Your task to perform on an android device: set default search engine in the chrome app Image 0: 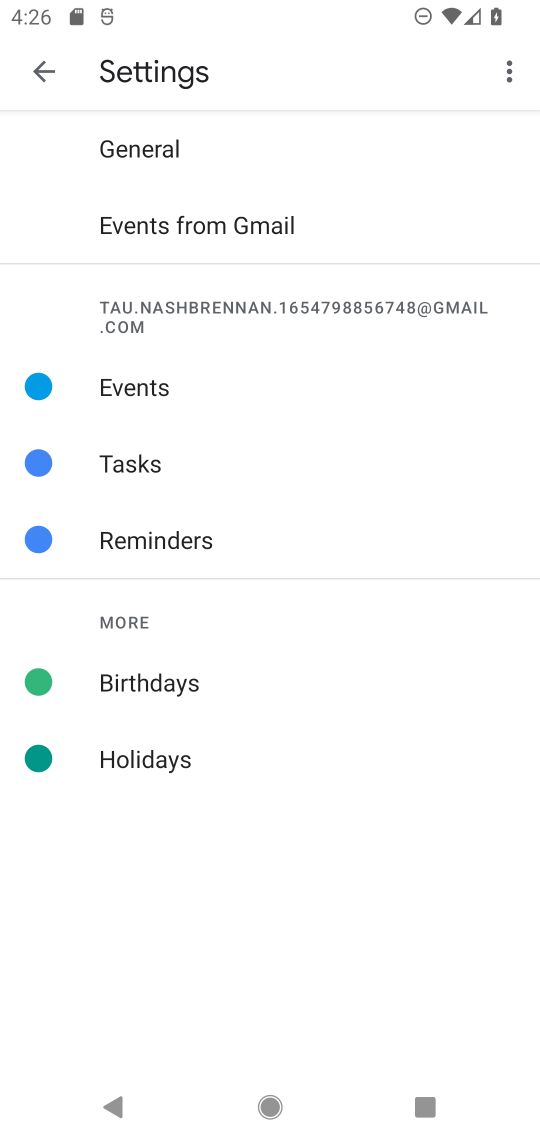
Step 0: press home button
Your task to perform on an android device: set default search engine in the chrome app Image 1: 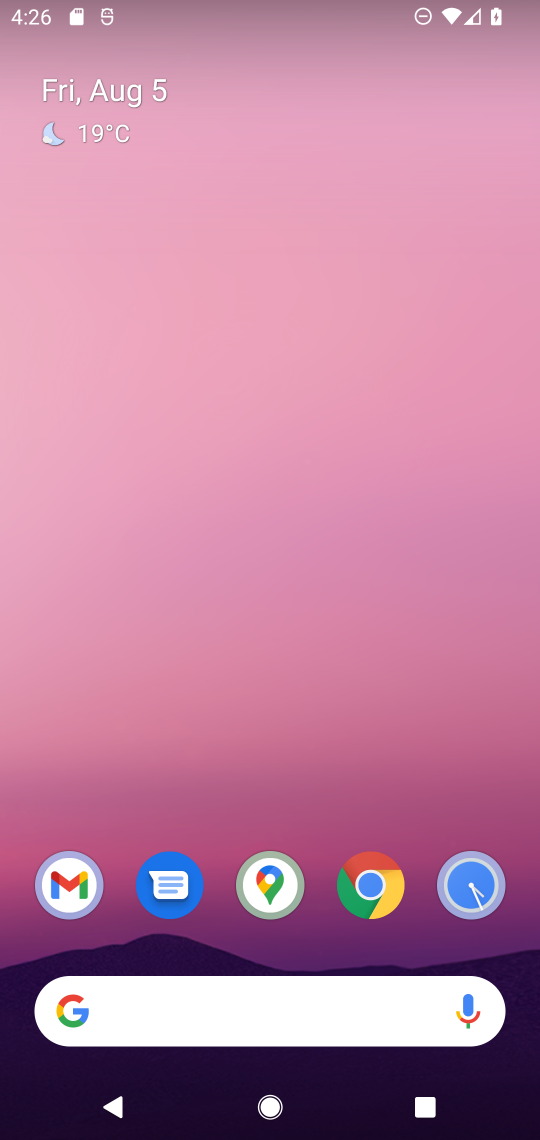
Step 1: click (360, 884)
Your task to perform on an android device: set default search engine in the chrome app Image 2: 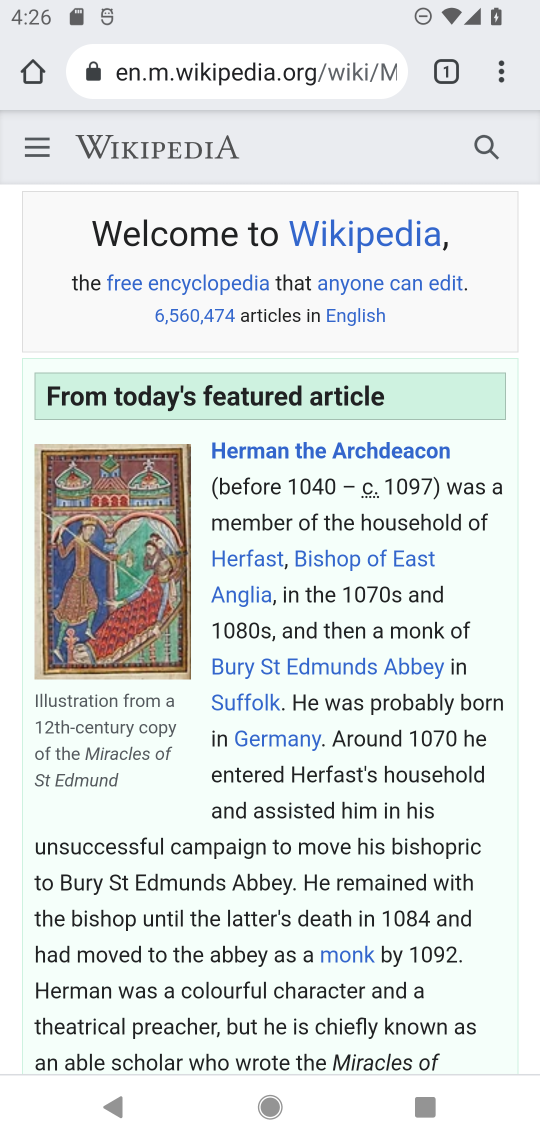
Step 2: click (497, 78)
Your task to perform on an android device: set default search engine in the chrome app Image 3: 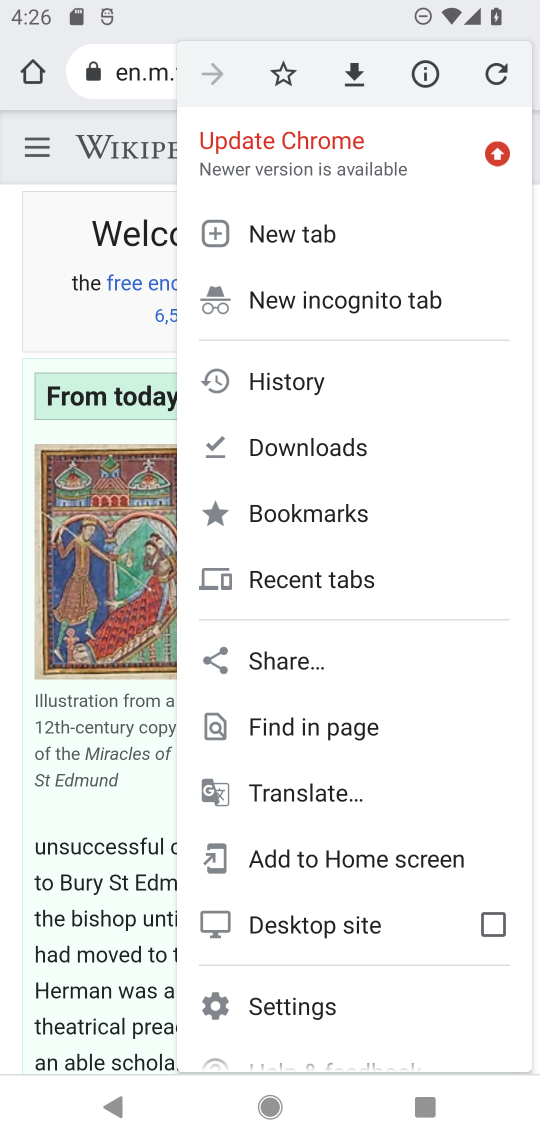
Step 3: click (306, 1010)
Your task to perform on an android device: set default search engine in the chrome app Image 4: 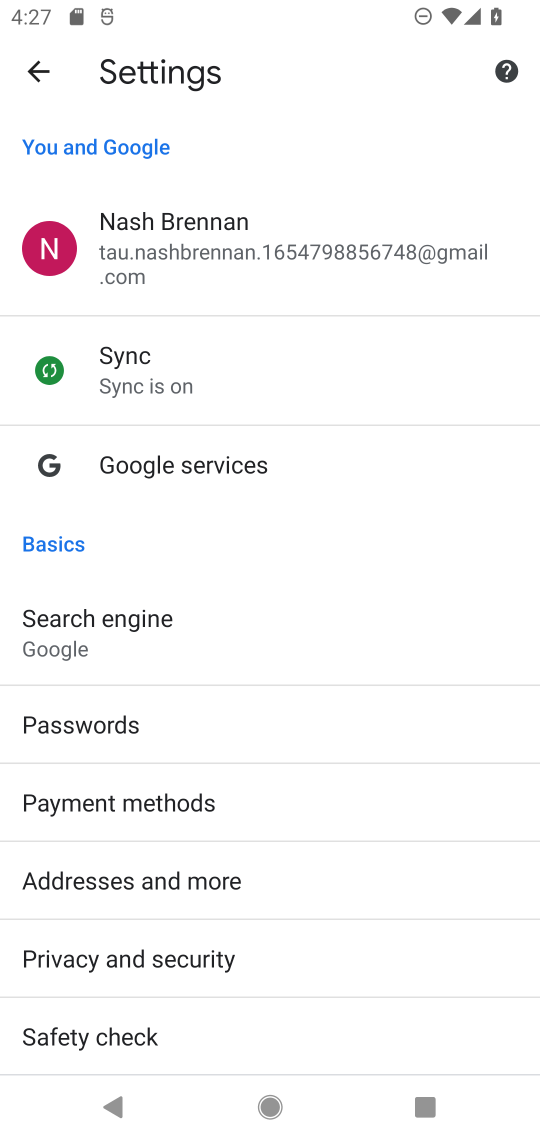
Step 4: drag from (149, 951) to (166, 573)
Your task to perform on an android device: set default search engine in the chrome app Image 5: 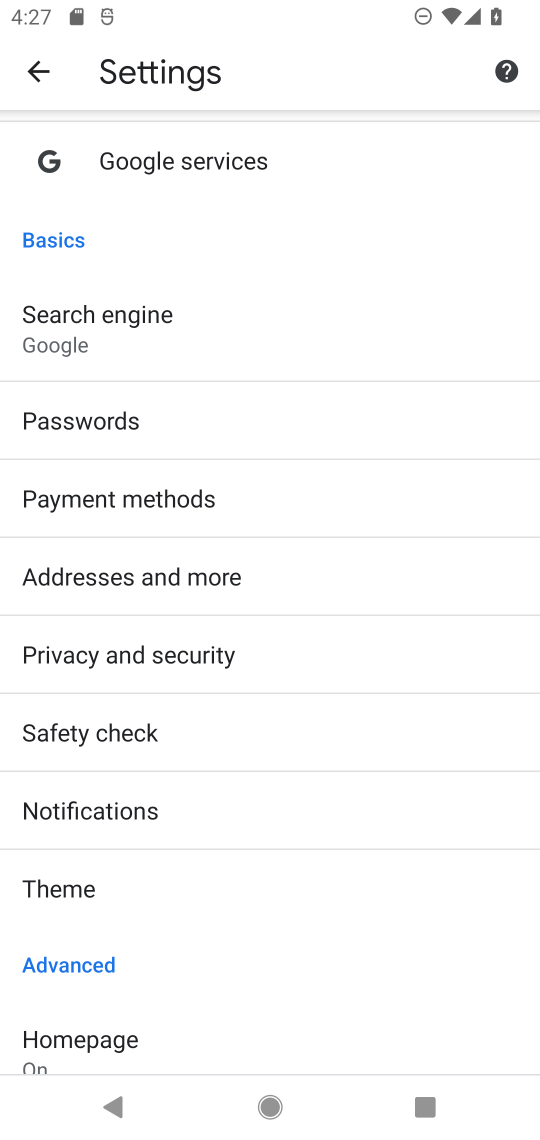
Step 5: drag from (195, 1031) to (158, 991)
Your task to perform on an android device: set default search engine in the chrome app Image 6: 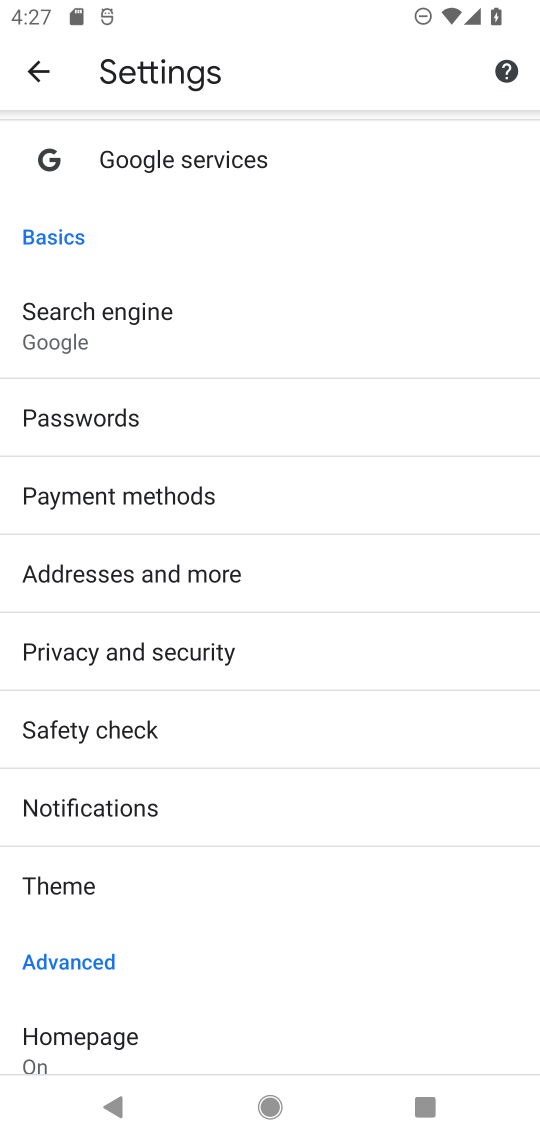
Step 6: click (98, 325)
Your task to perform on an android device: set default search engine in the chrome app Image 7: 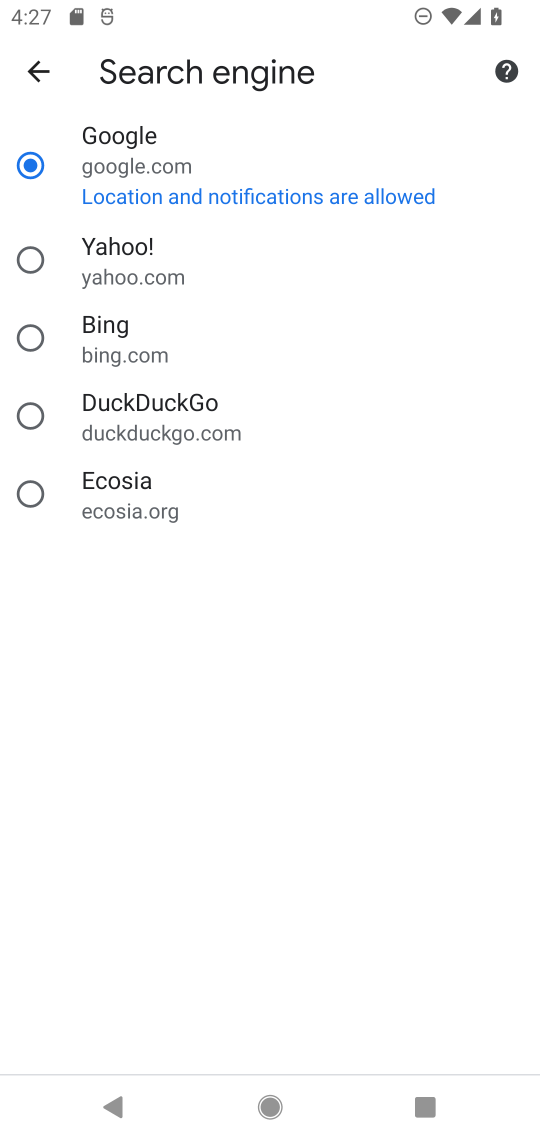
Step 7: click (36, 267)
Your task to perform on an android device: set default search engine in the chrome app Image 8: 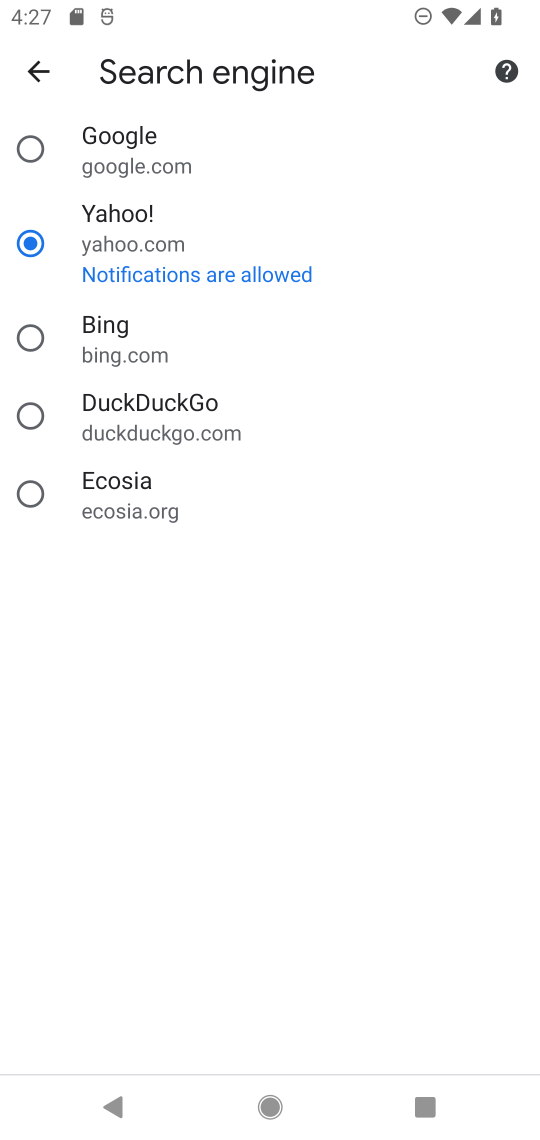
Step 8: task complete